Your task to perform on an android device: toggle airplane mode Image 0: 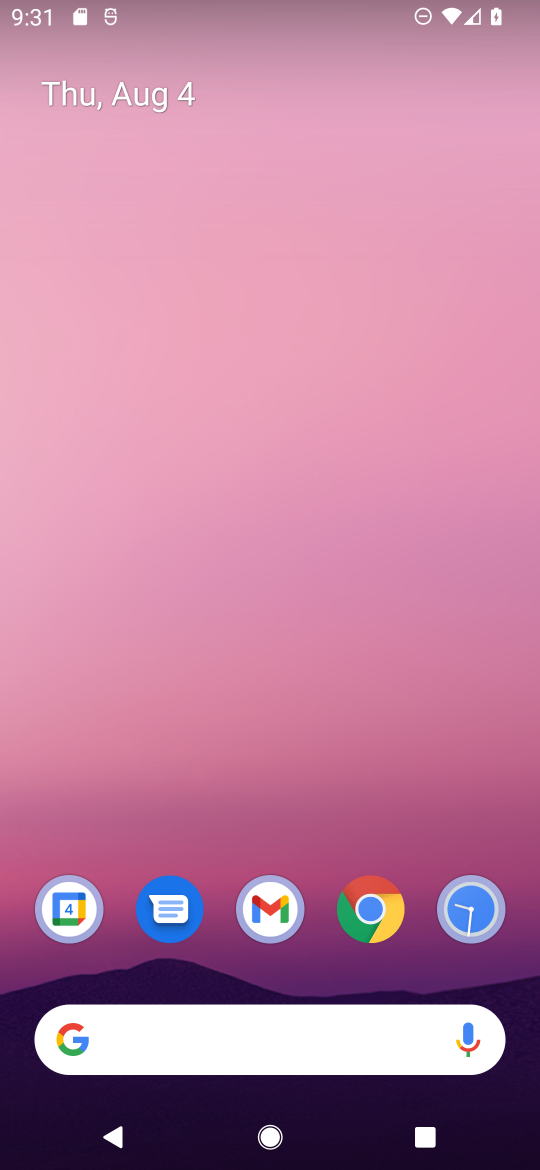
Step 0: press home button
Your task to perform on an android device: toggle airplane mode Image 1: 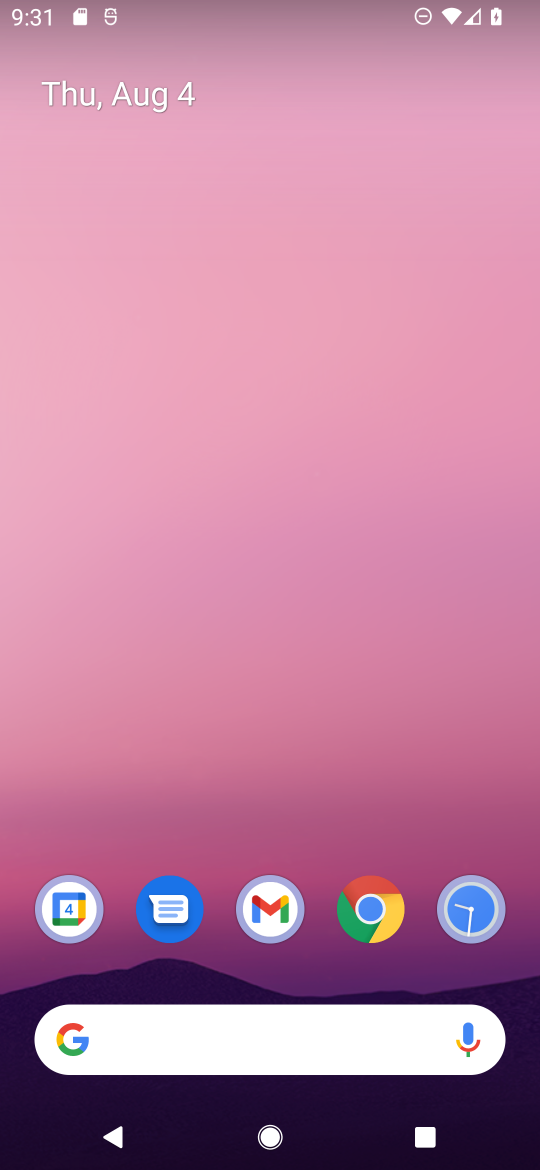
Step 1: drag from (317, 587) to (323, 229)
Your task to perform on an android device: toggle airplane mode Image 2: 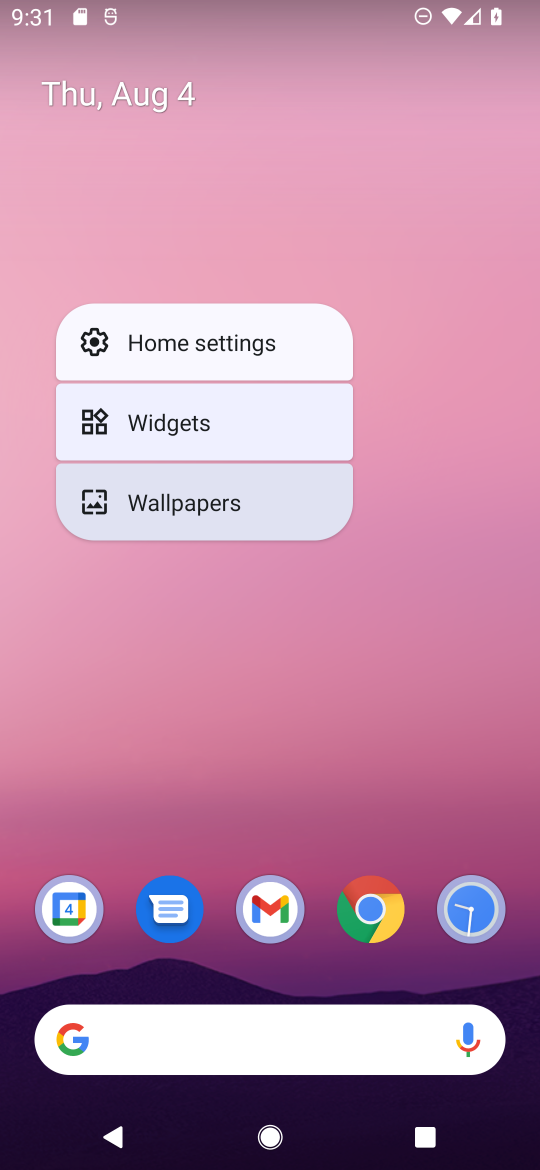
Step 2: click (419, 608)
Your task to perform on an android device: toggle airplane mode Image 3: 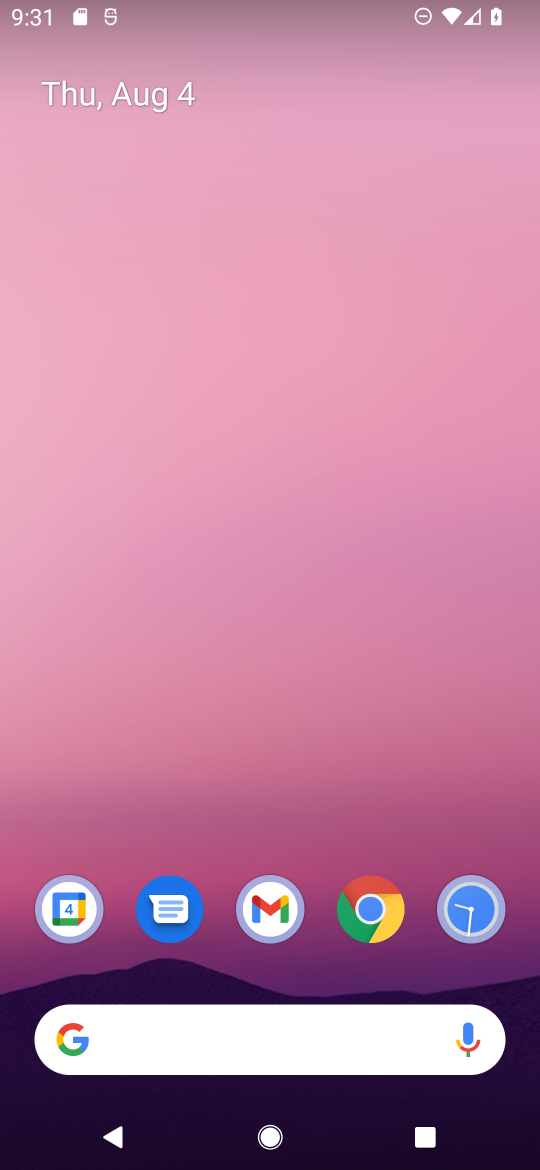
Step 3: drag from (317, 793) to (339, 137)
Your task to perform on an android device: toggle airplane mode Image 4: 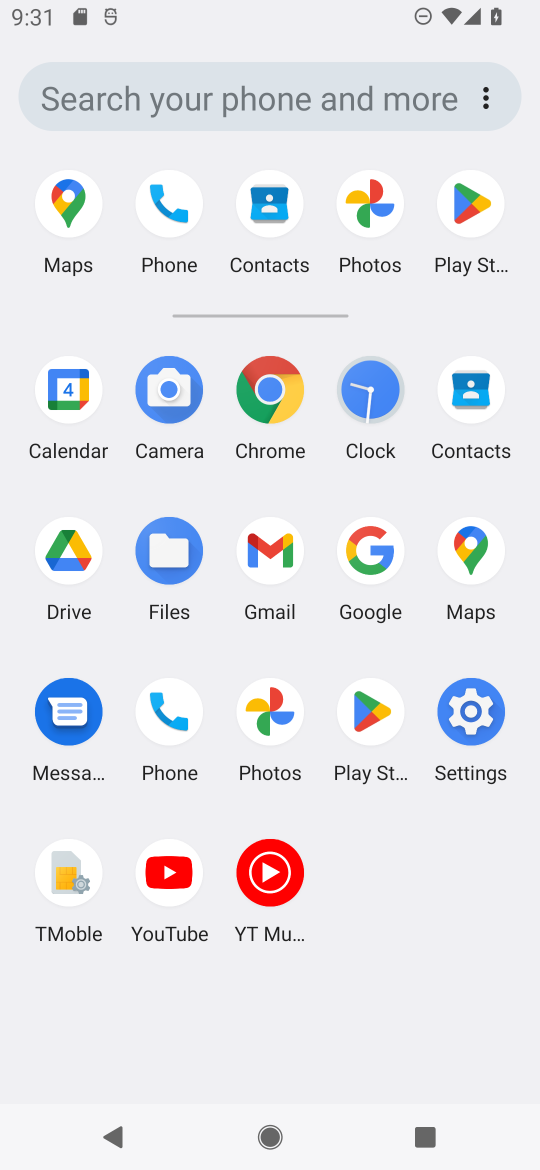
Step 4: click (476, 724)
Your task to perform on an android device: toggle airplane mode Image 5: 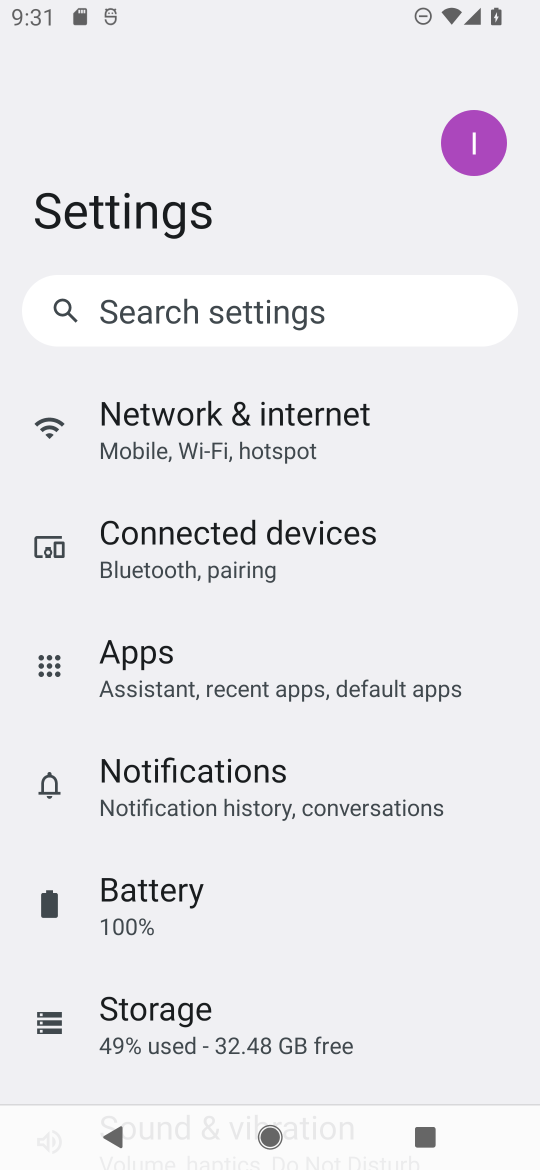
Step 5: drag from (445, 941) to (457, 774)
Your task to perform on an android device: toggle airplane mode Image 6: 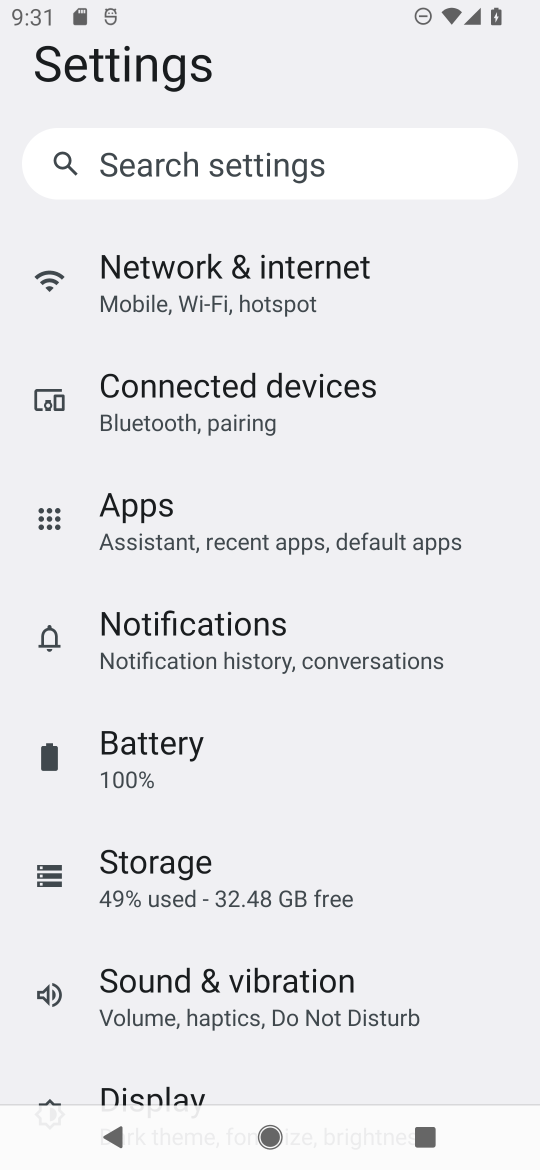
Step 6: drag from (470, 884) to (482, 709)
Your task to perform on an android device: toggle airplane mode Image 7: 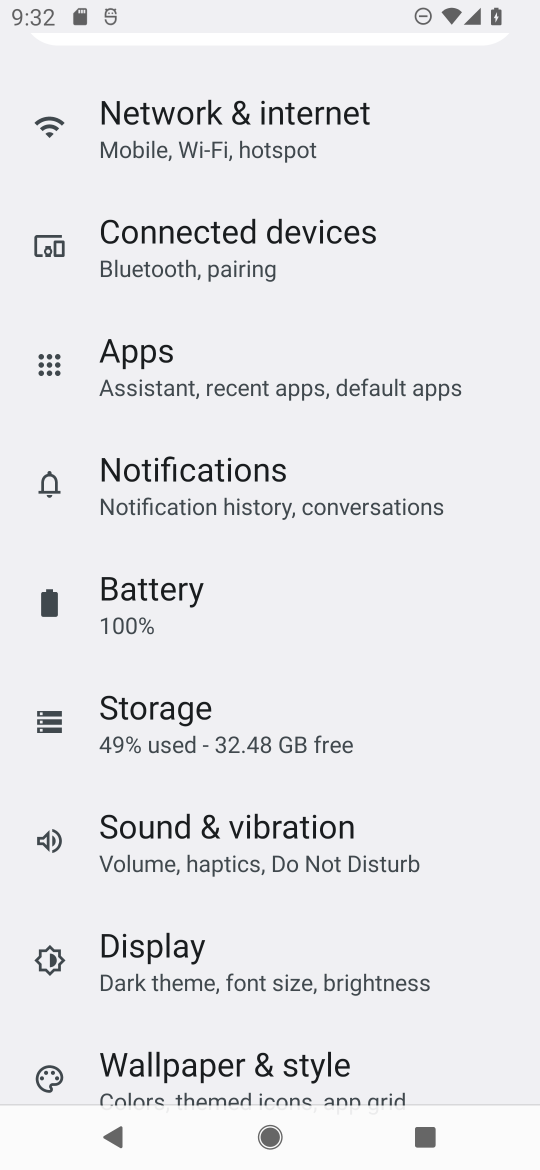
Step 7: drag from (472, 1003) to (486, 798)
Your task to perform on an android device: toggle airplane mode Image 8: 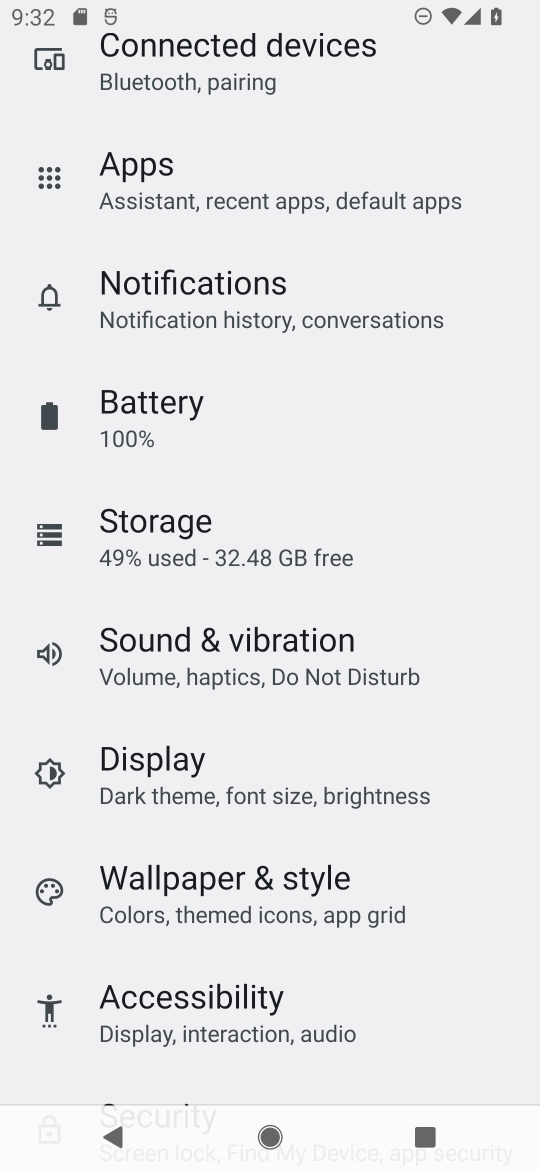
Step 8: drag from (443, 1032) to (443, 810)
Your task to perform on an android device: toggle airplane mode Image 9: 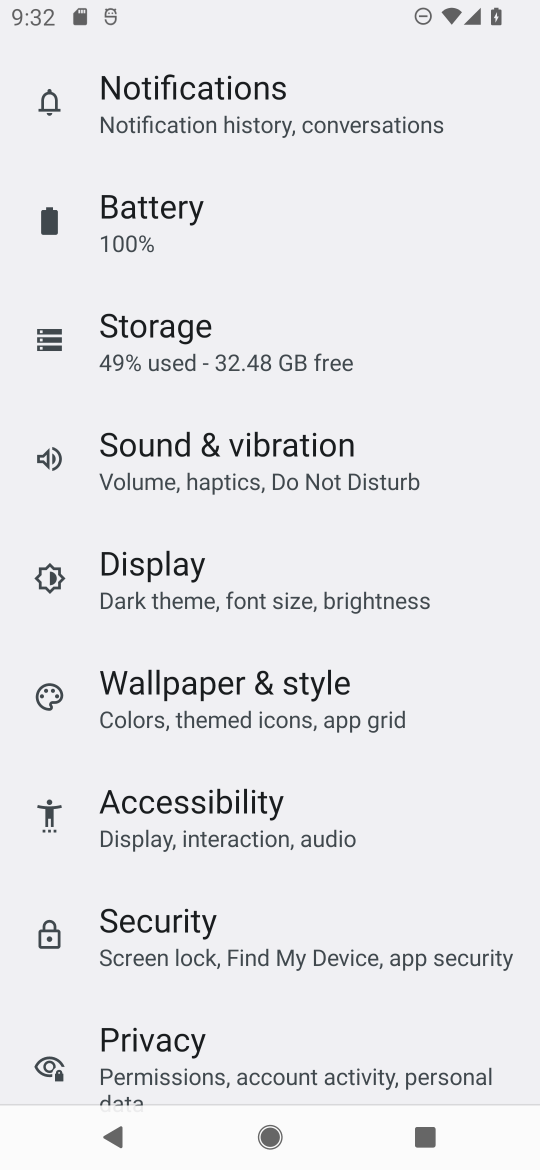
Step 9: drag from (446, 878) to (446, 658)
Your task to perform on an android device: toggle airplane mode Image 10: 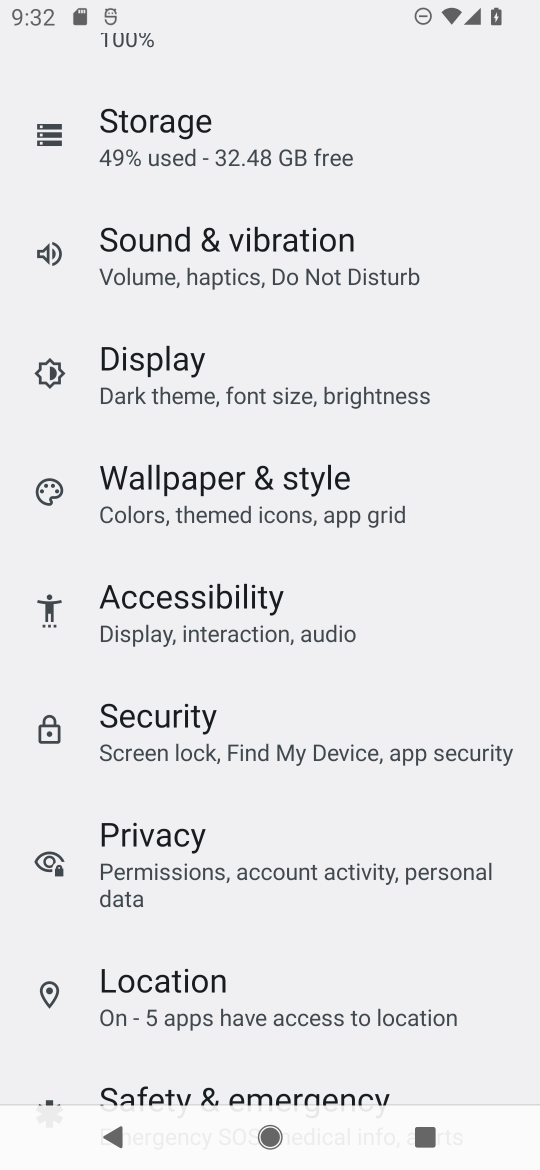
Step 10: drag from (398, 911) to (404, 648)
Your task to perform on an android device: toggle airplane mode Image 11: 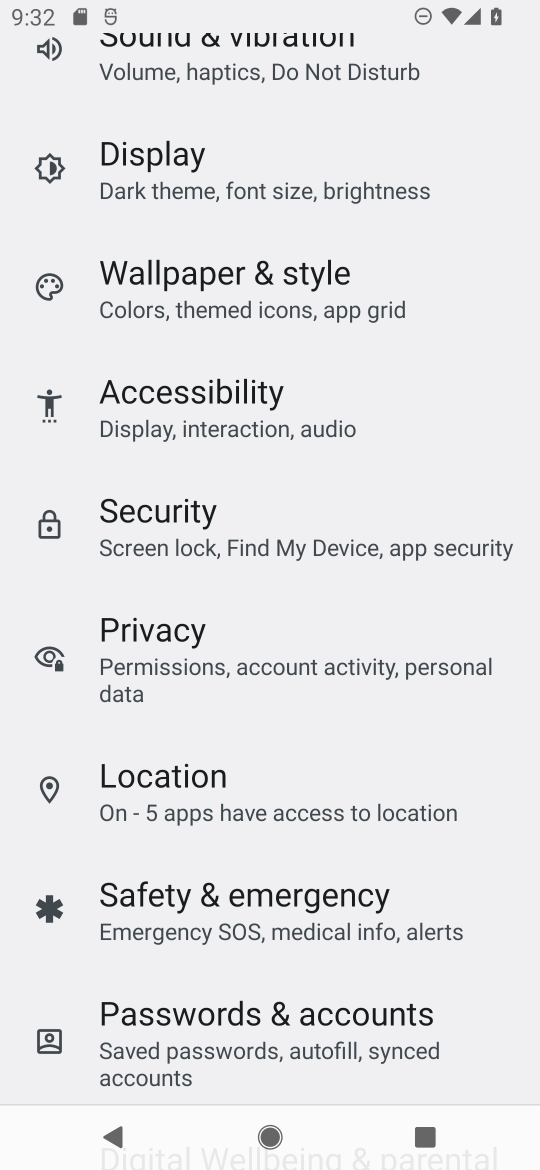
Step 11: drag from (437, 972) to (452, 672)
Your task to perform on an android device: toggle airplane mode Image 12: 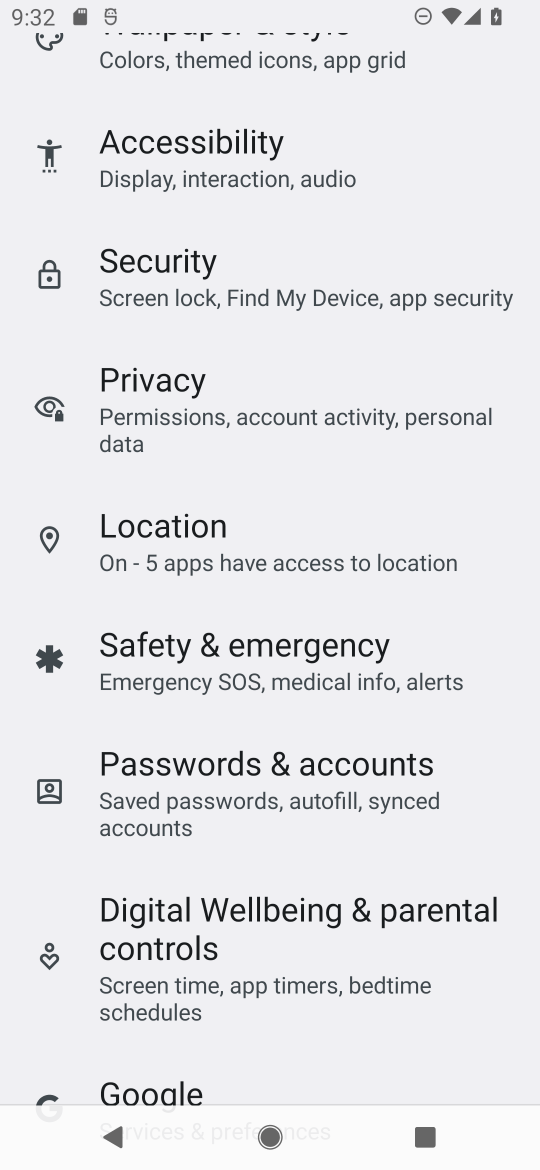
Step 12: drag from (457, 979) to (460, 657)
Your task to perform on an android device: toggle airplane mode Image 13: 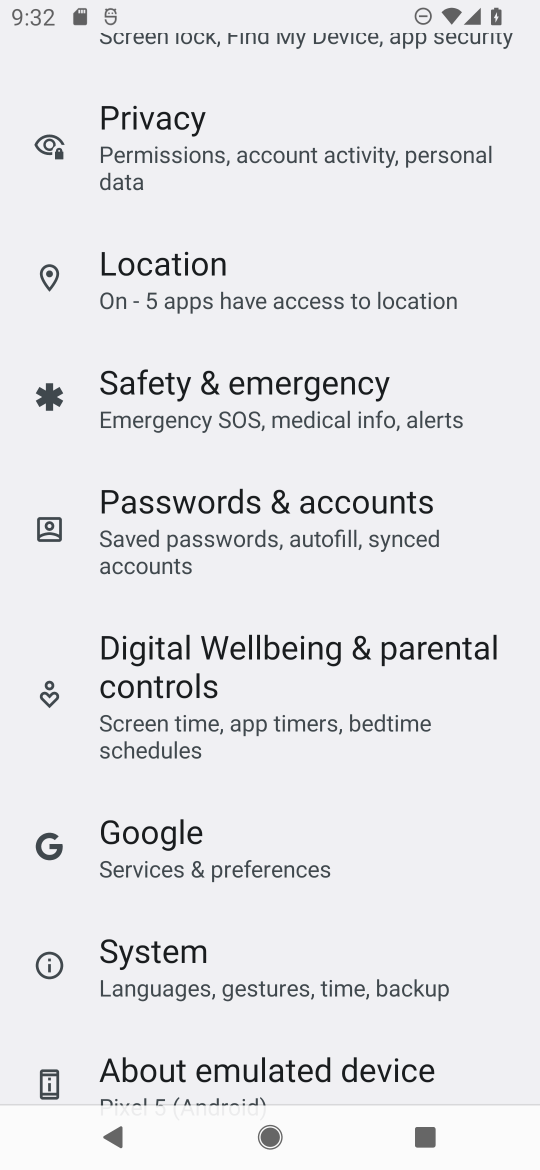
Step 13: drag from (432, 850) to (471, 530)
Your task to perform on an android device: toggle airplane mode Image 14: 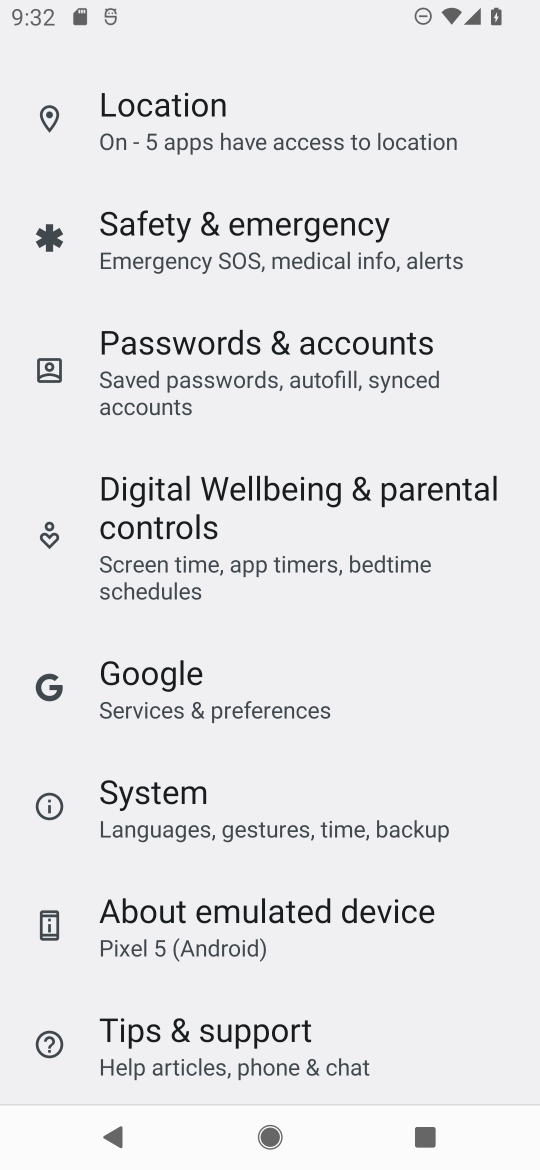
Step 14: drag from (463, 341) to (467, 521)
Your task to perform on an android device: toggle airplane mode Image 15: 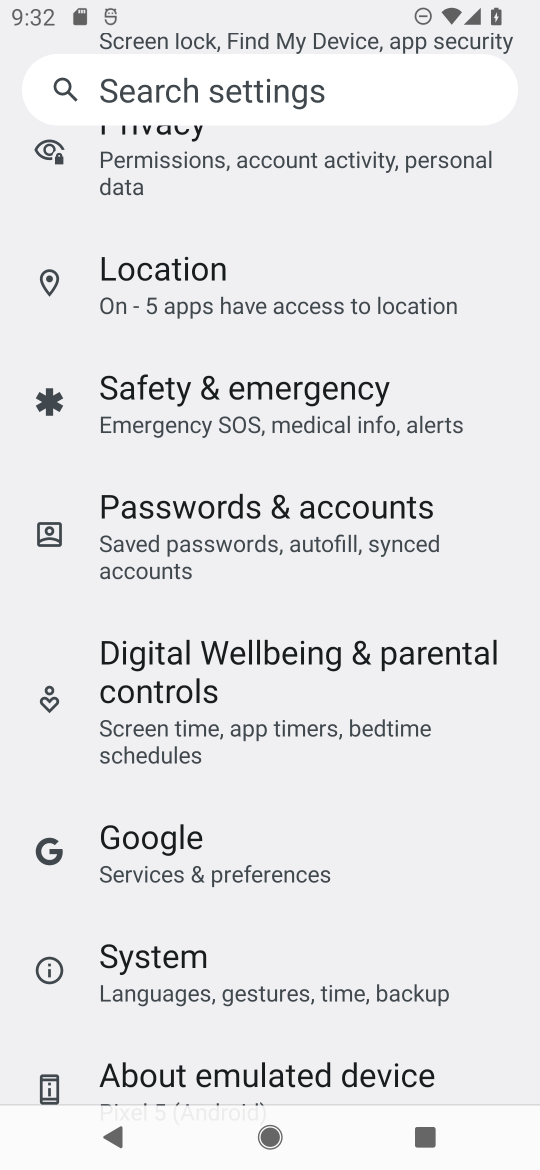
Step 15: drag from (497, 280) to (485, 480)
Your task to perform on an android device: toggle airplane mode Image 16: 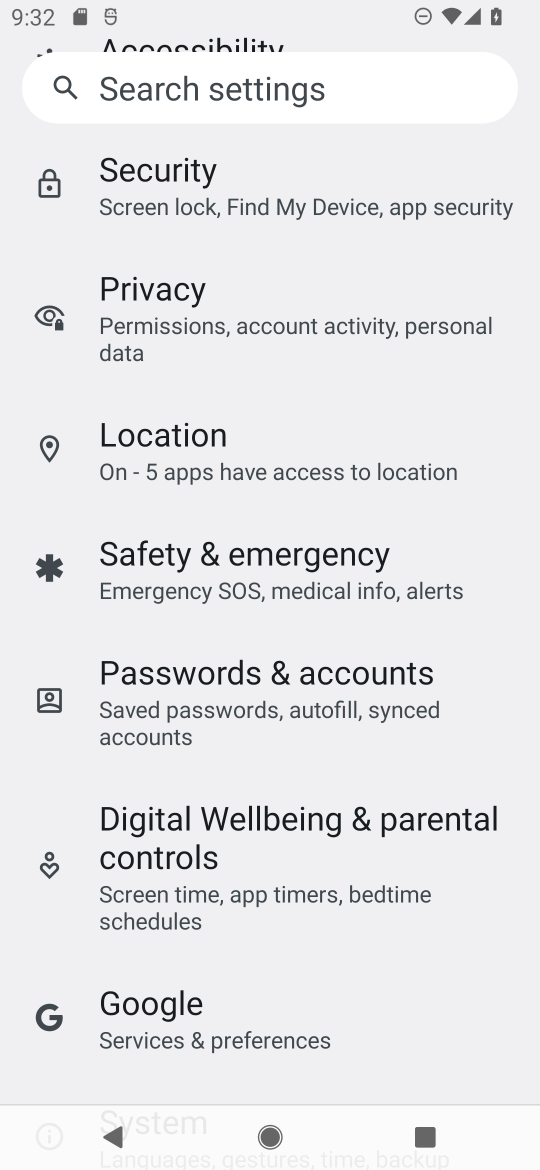
Step 16: drag from (482, 242) to (481, 480)
Your task to perform on an android device: toggle airplane mode Image 17: 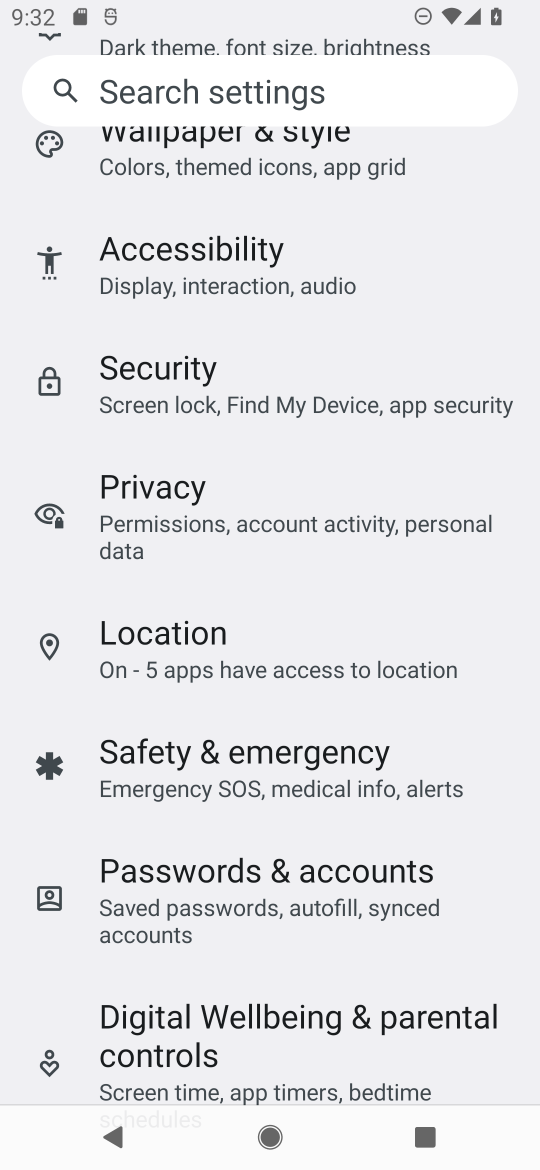
Step 17: drag from (481, 176) to (453, 483)
Your task to perform on an android device: toggle airplane mode Image 18: 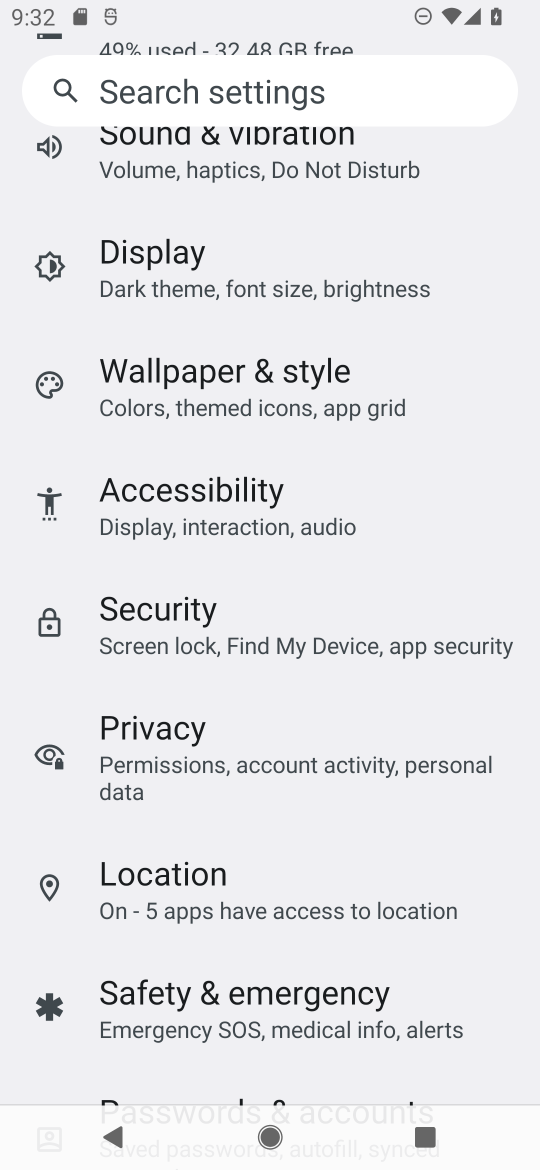
Step 18: drag from (479, 177) to (480, 429)
Your task to perform on an android device: toggle airplane mode Image 19: 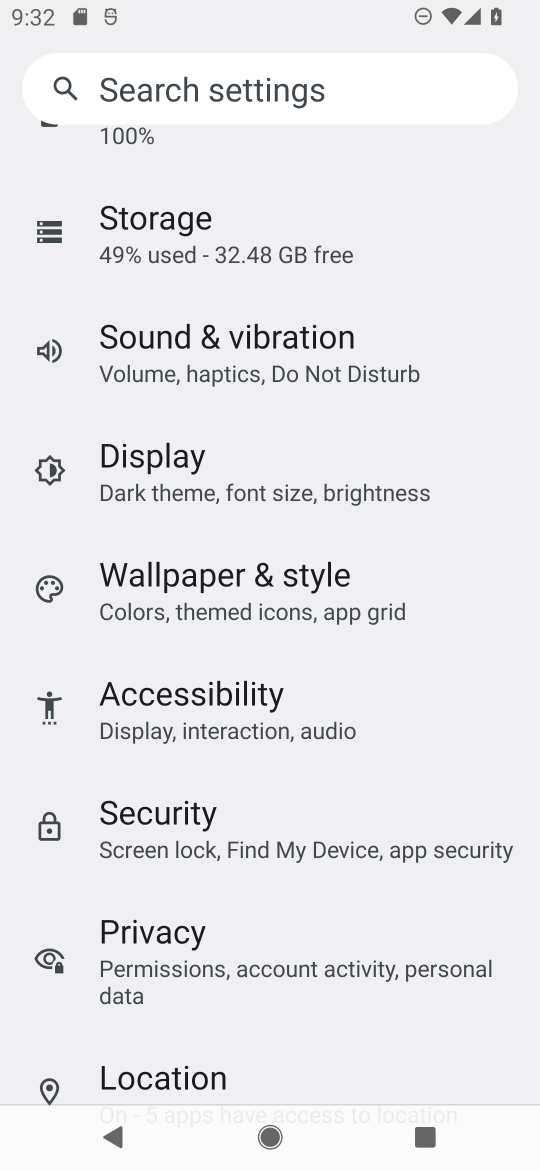
Step 19: drag from (466, 243) to (433, 593)
Your task to perform on an android device: toggle airplane mode Image 20: 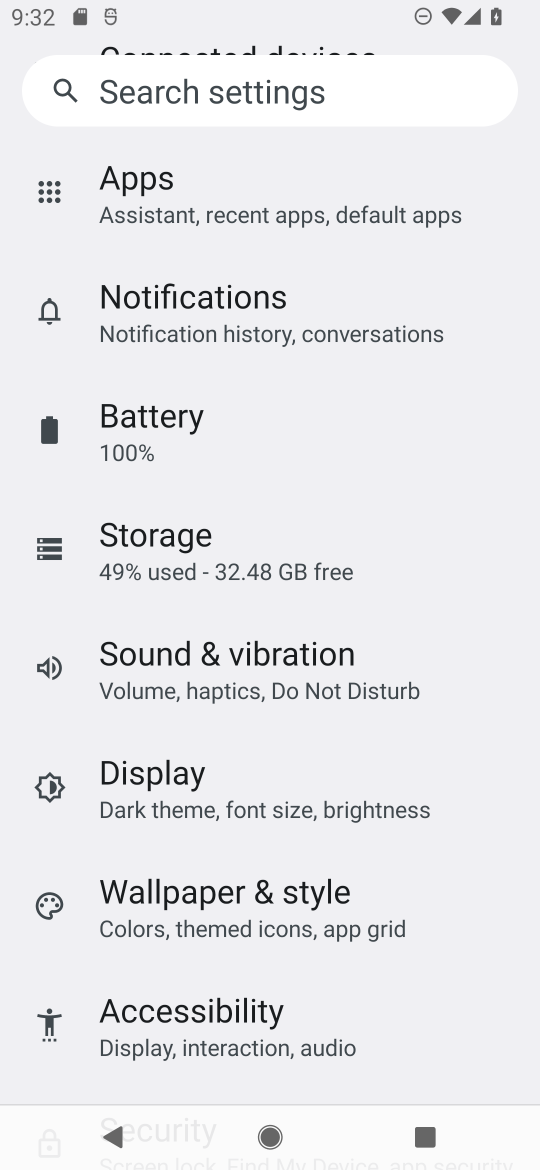
Step 20: drag from (484, 171) to (454, 495)
Your task to perform on an android device: toggle airplane mode Image 21: 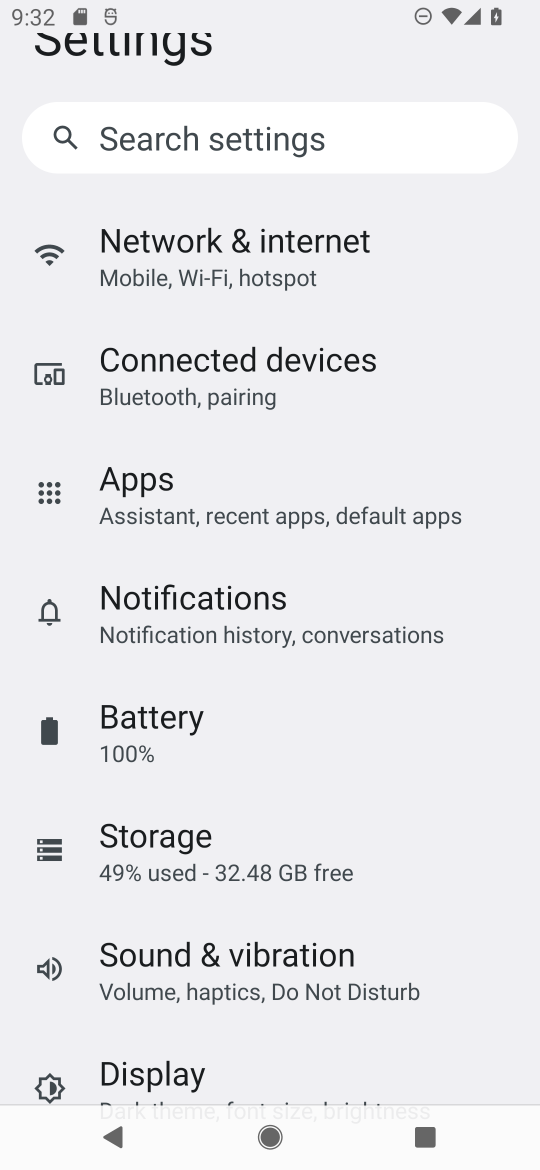
Step 21: drag from (469, 209) to (461, 458)
Your task to perform on an android device: toggle airplane mode Image 22: 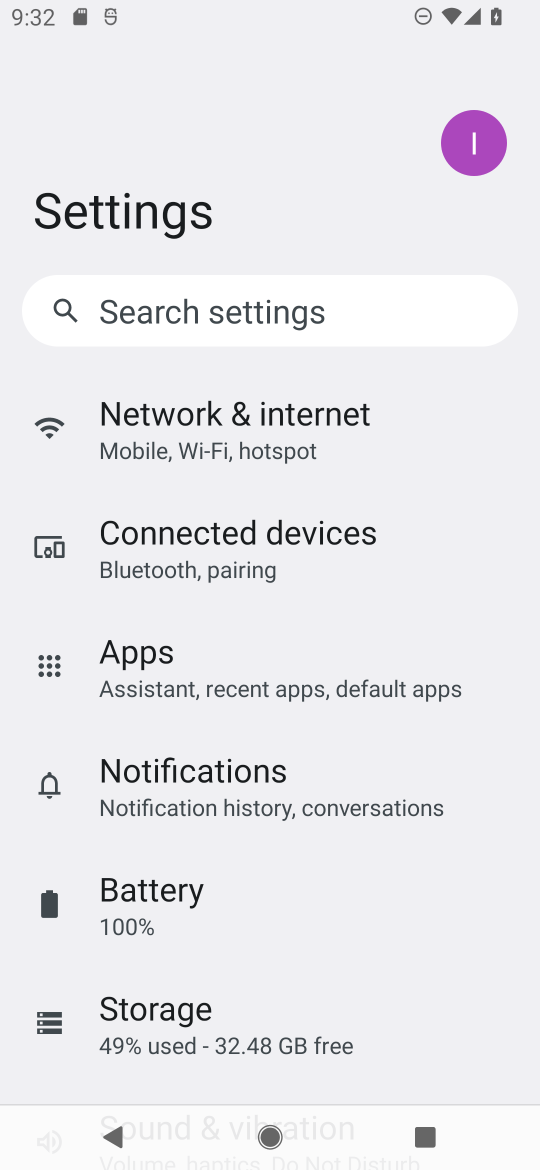
Step 22: click (251, 430)
Your task to perform on an android device: toggle airplane mode Image 23: 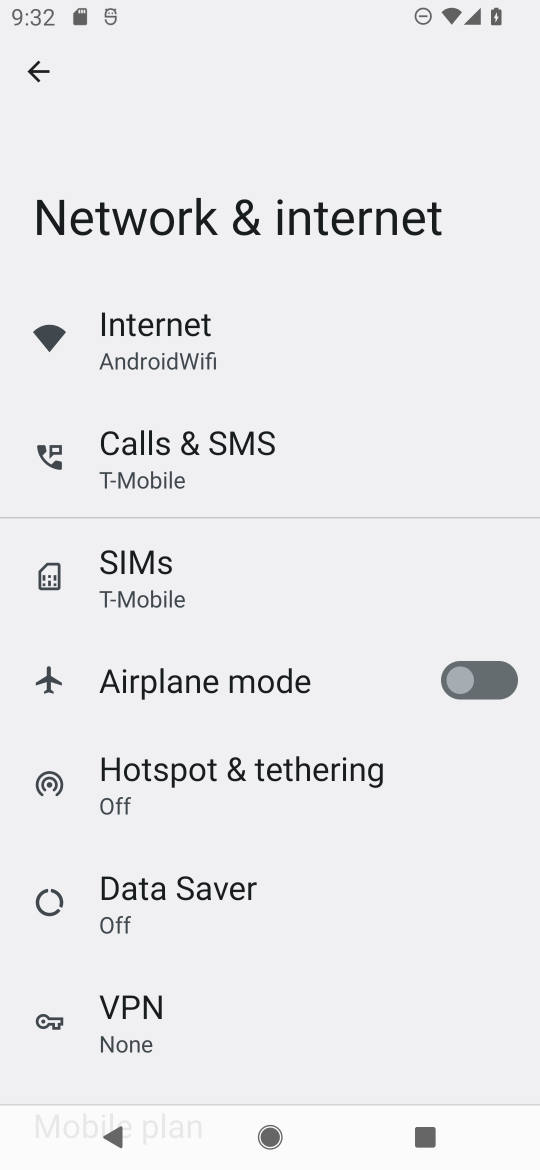
Step 23: click (484, 662)
Your task to perform on an android device: toggle airplane mode Image 24: 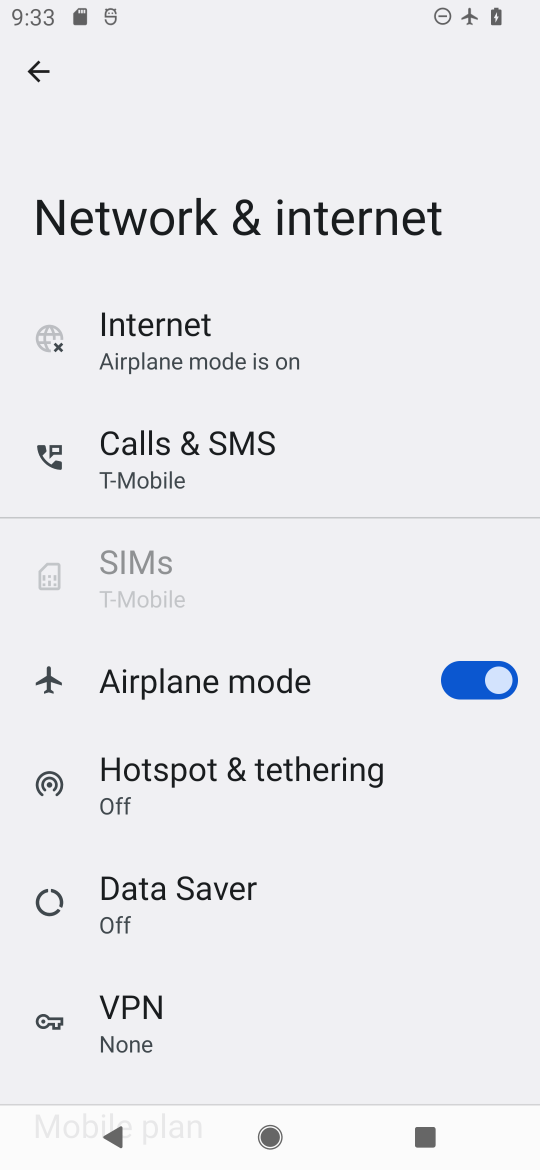
Step 24: task complete